Your task to perform on an android device: open sync settings in chrome Image 0: 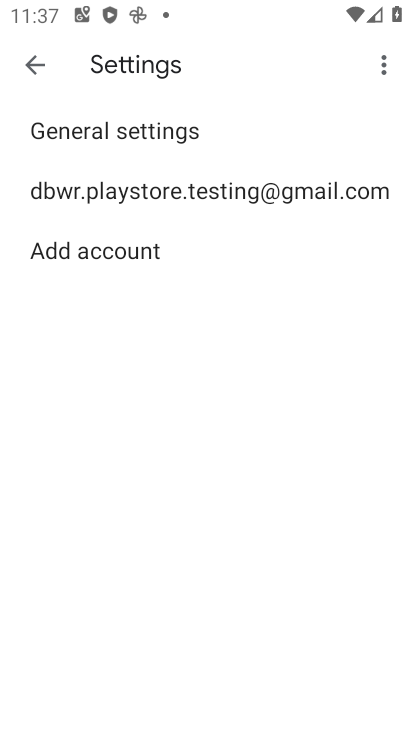
Step 0: press home button
Your task to perform on an android device: open sync settings in chrome Image 1: 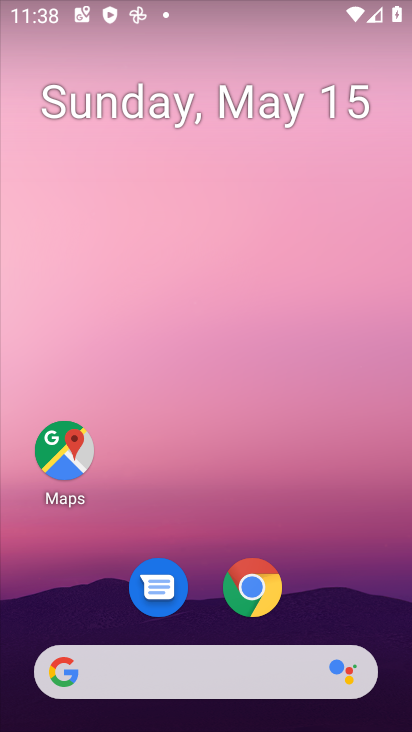
Step 1: drag from (368, 501) to (287, 85)
Your task to perform on an android device: open sync settings in chrome Image 2: 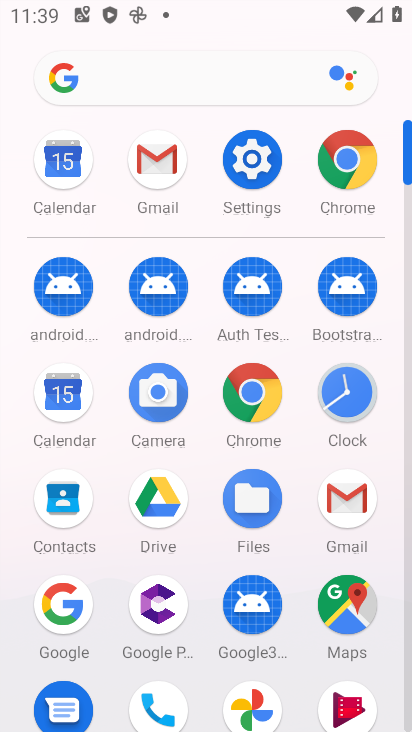
Step 2: click (350, 159)
Your task to perform on an android device: open sync settings in chrome Image 3: 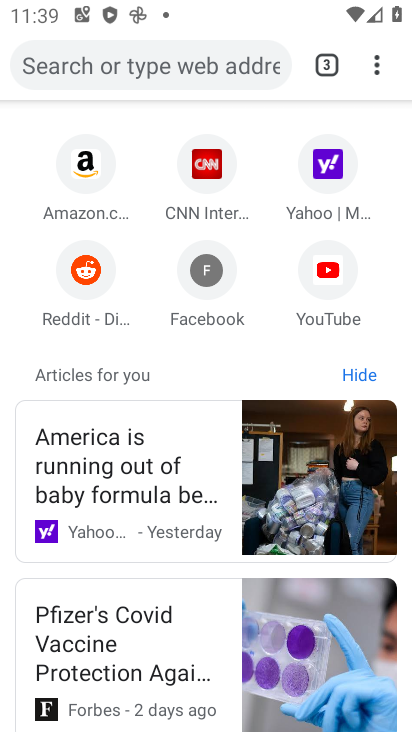
Step 3: click (377, 69)
Your task to perform on an android device: open sync settings in chrome Image 4: 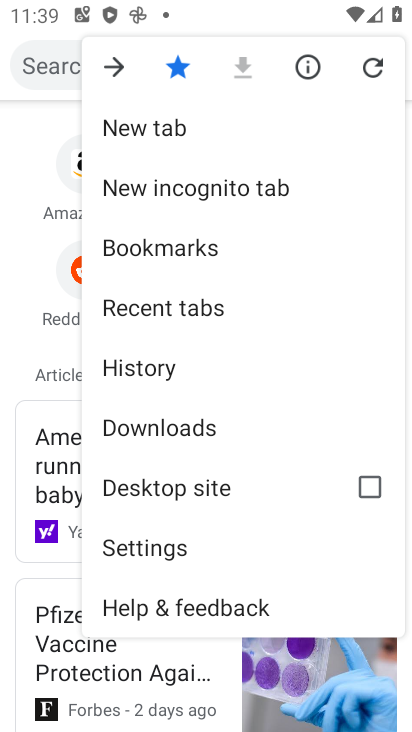
Step 4: click (230, 556)
Your task to perform on an android device: open sync settings in chrome Image 5: 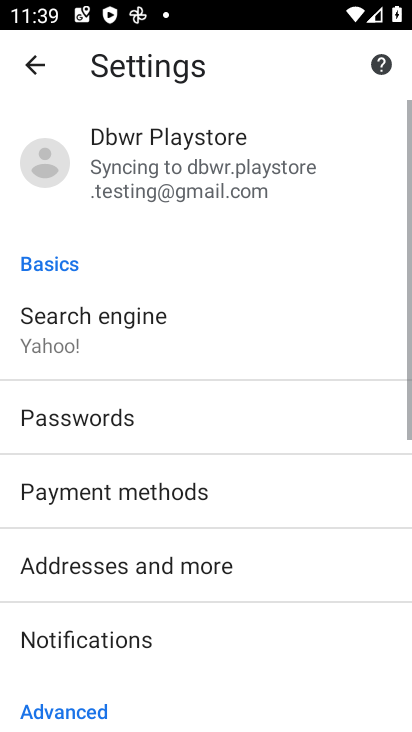
Step 5: drag from (145, 647) to (215, 162)
Your task to perform on an android device: open sync settings in chrome Image 6: 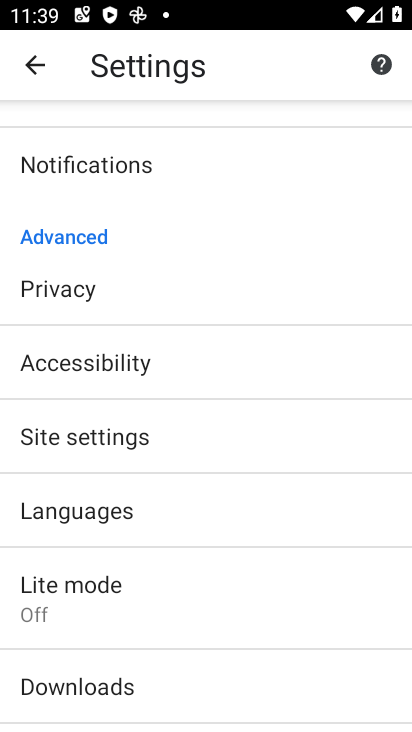
Step 6: click (186, 428)
Your task to perform on an android device: open sync settings in chrome Image 7: 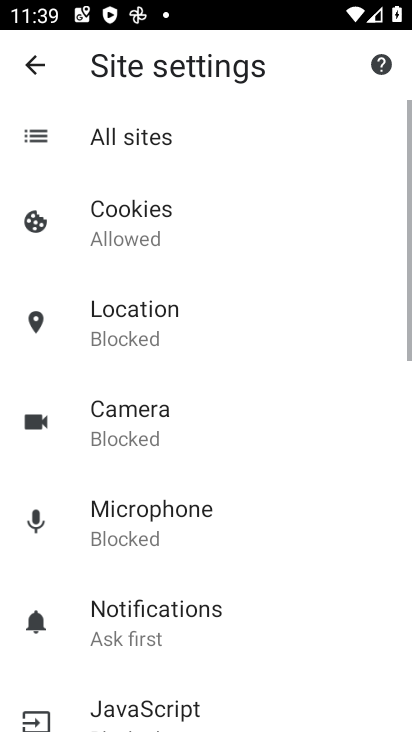
Step 7: drag from (157, 652) to (202, 194)
Your task to perform on an android device: open sync settings in chrome Image 8: 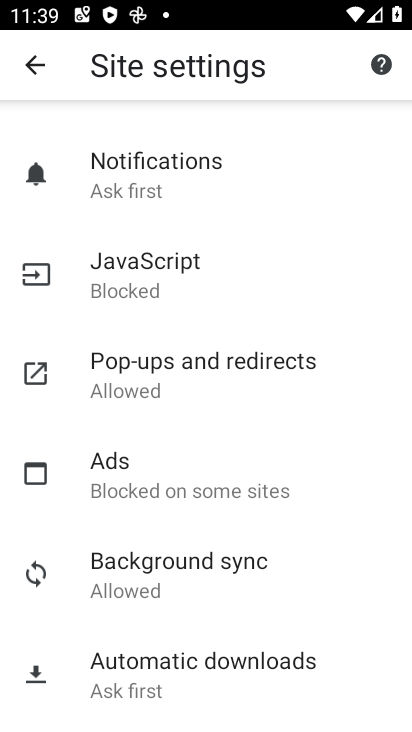
Step 8: click (198, 551)
Your task to perform on an android device: open sync settings in chrome Image 9: 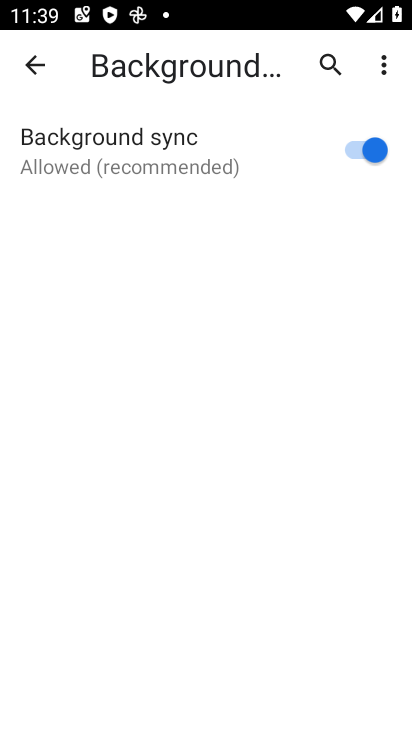
Step 9: task complete